Your task to perform on an android device: check storage Image 0: 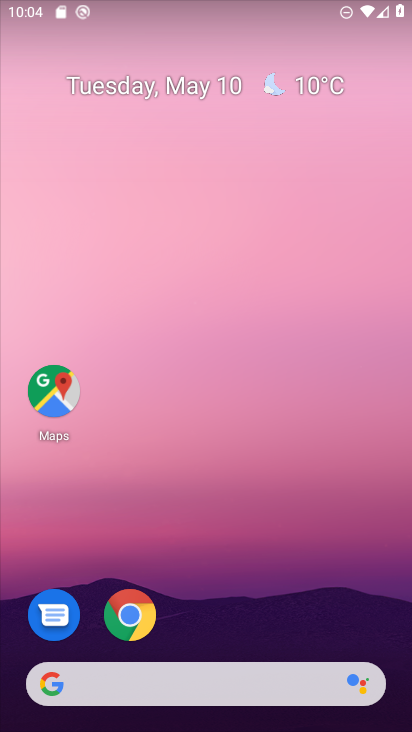
Step 0: drag from (394, 657) to (331, 28)
Your task to perform on an android device: check storage Image 1: 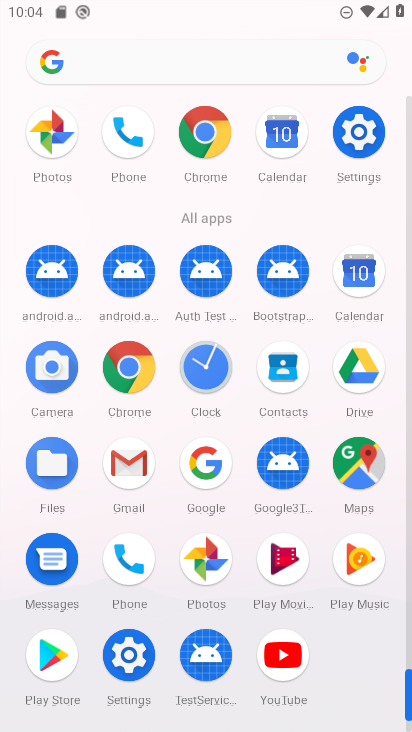
Step 1: click (130, 654)
Your task to perform on an android device: check storage Image 2: 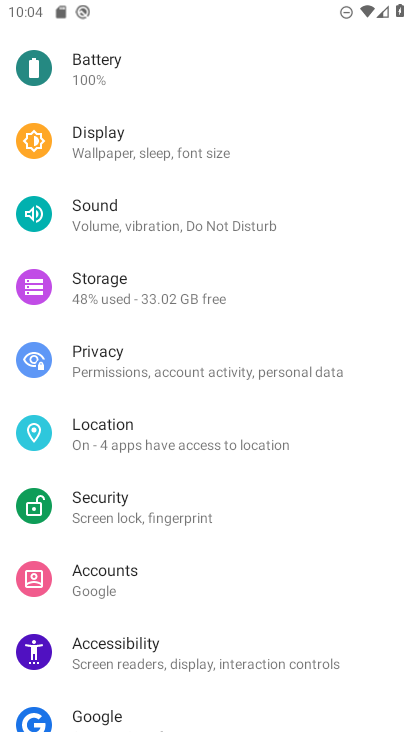
Step 2: click (106, 282)
Your task to perform on an android device: check storage Image 3: 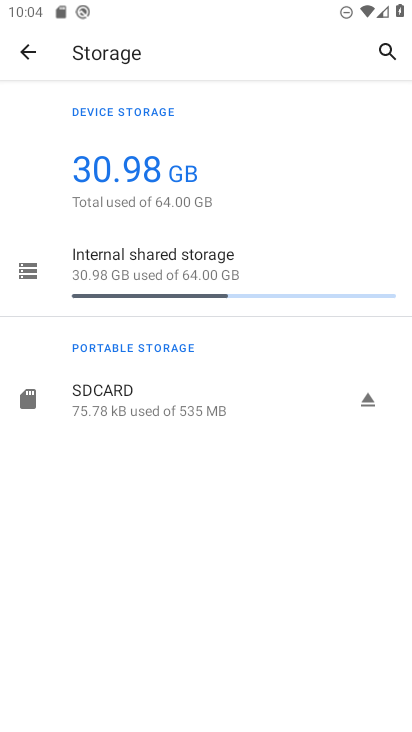
Step 3: task complete